Your task to perform on an android device: Open wifi settings Image 0: 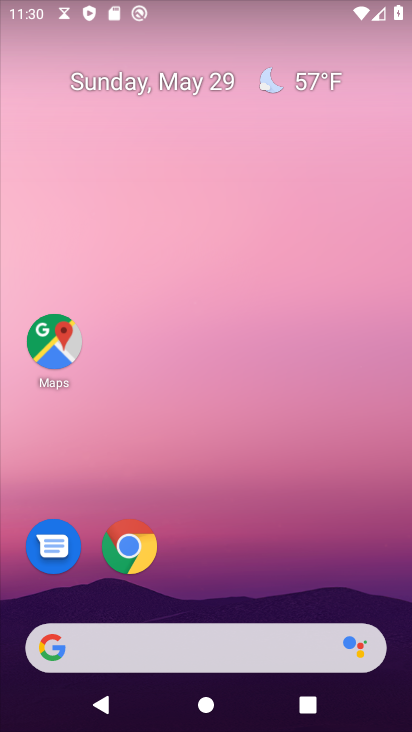
Step 0: press home button
Your task to perform on an android device: Open wifi settings Image 1: 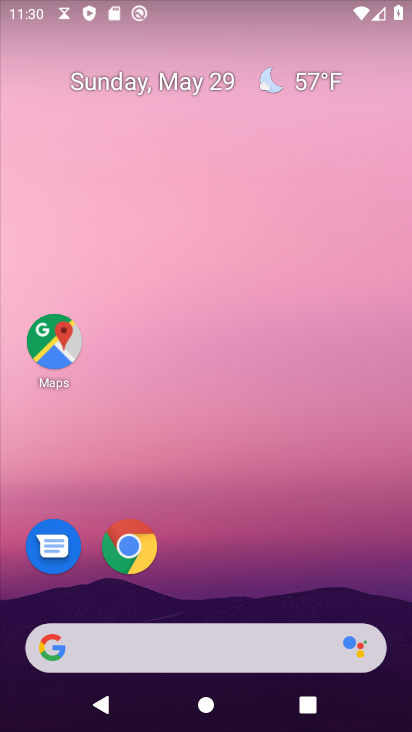
Step 1: drag from (190, 643) to (325, 95)
Your task to perform on an android device: Open wifi settings Image 2: 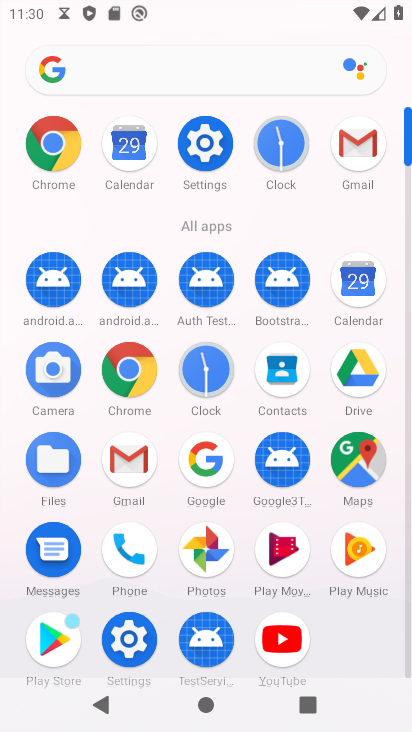
Step 2: click (208, 149)
Your task to perform on an android device: Open wifi settings Image 3: 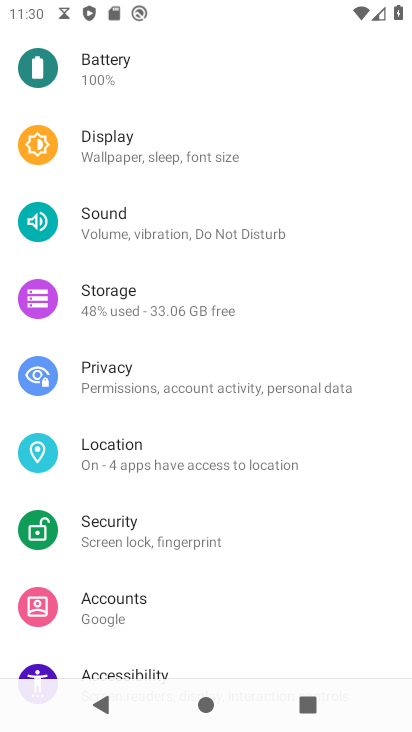
Step 3: drag from (352, 134) to (337, 595)
Your task to perform on an android device: Open wifi settings Image 4: 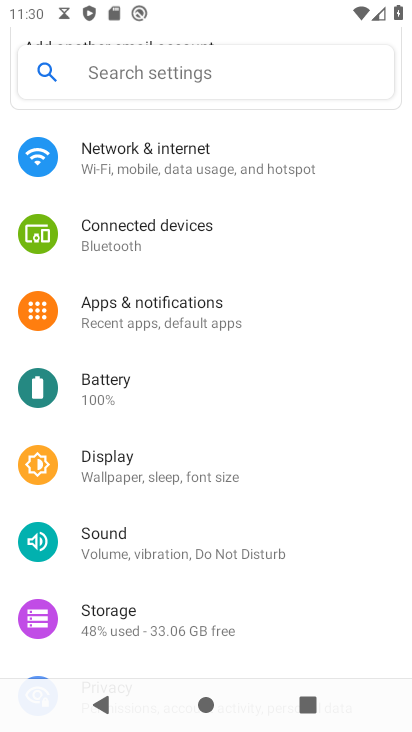
Step 4: click (185, 157)
Your task to perform on an android device: Open wifi settings Image 5: 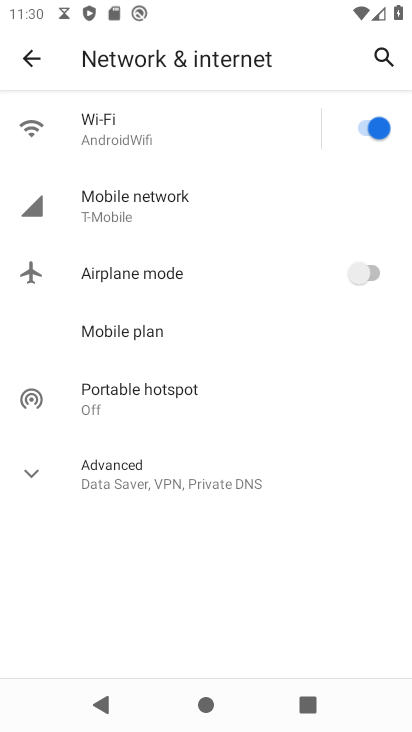
Step 5: click (112, 142)
Your task to perform on an android device: Open wifi settings Image 6: 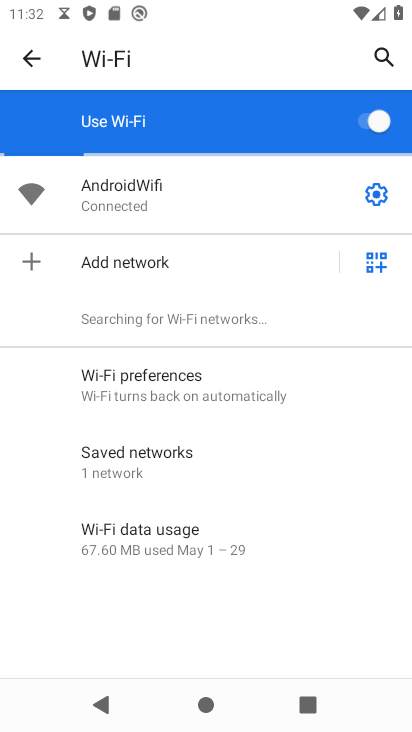
Step 6: task complete